Your task to perform on an android device: turn smart compose on in the gmail app Image 0: 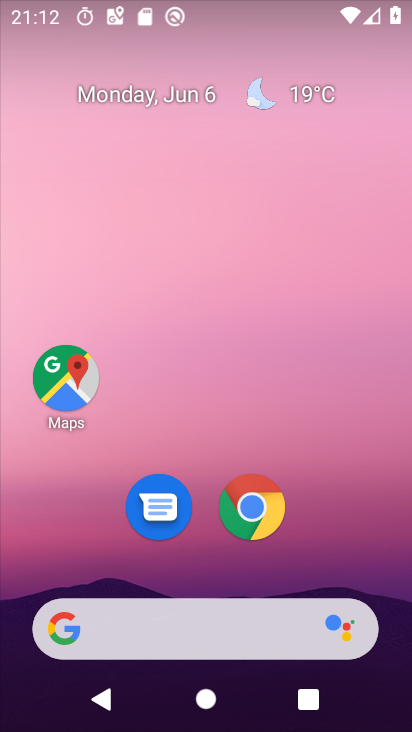
Step 0: press home button
Your task to perform on an android device: turn smart compose on in the gmail app Image 1: 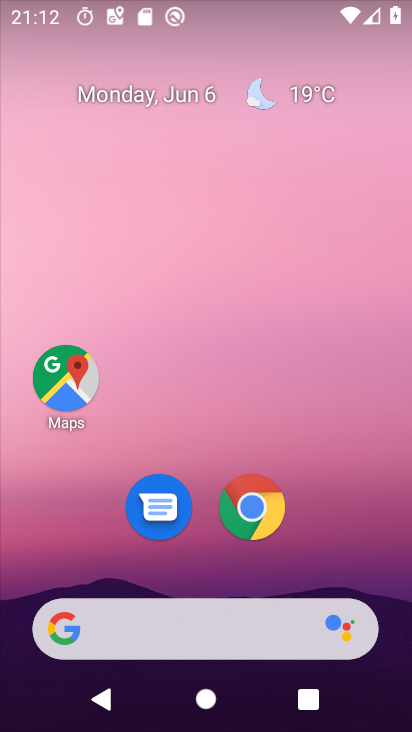
Step 1: drag from (348, 530) to (367, 52)
Your task to perform on an android device: turn smart compose on in the gmail app Image 2: 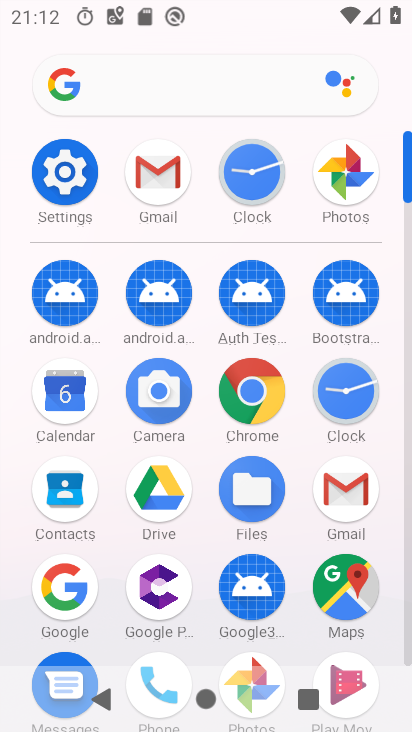
Step 2: click (146, 157)
Your task to perform on an android device: turn smart compose on in the gmail app Image 3: 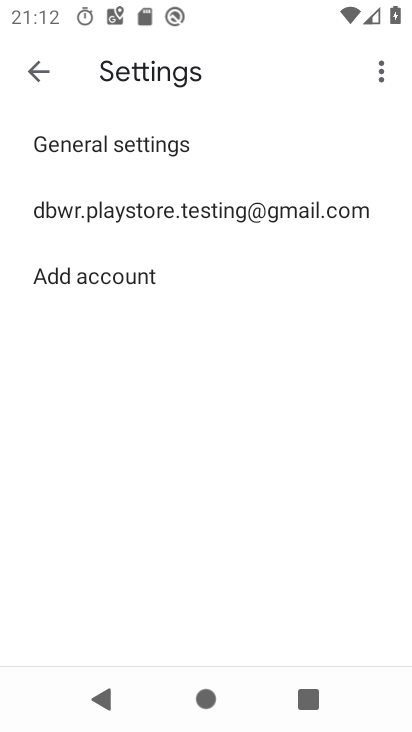
Step 3: click (41, 70)
Your task to perform on an android device: turn smart compose on in the gmail app Image 4: 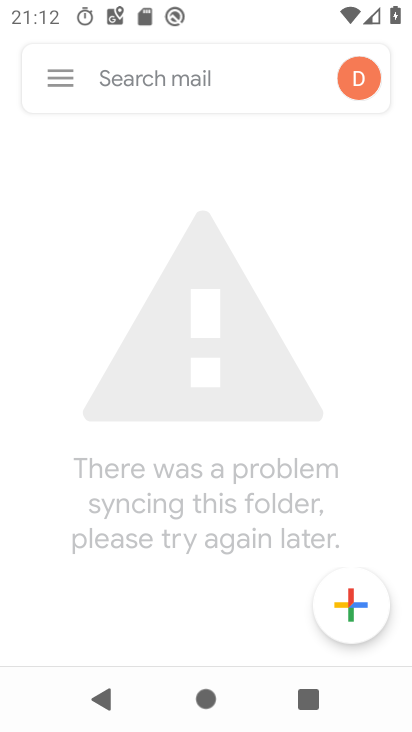
Step 4: click (41, 70)
Your task to perform on an android device: turn smart compose on in the gmail app Image 5: 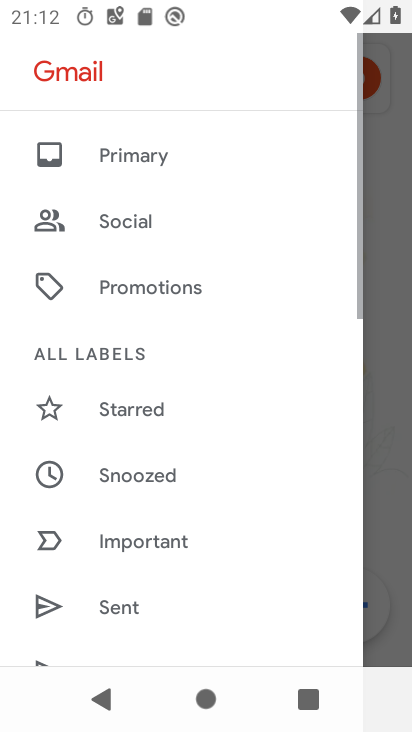
Step 5: drag from (151, 594) to (192, 122)
Your task to perform on an android device: turn smart compose on in the gmail app Image 6: 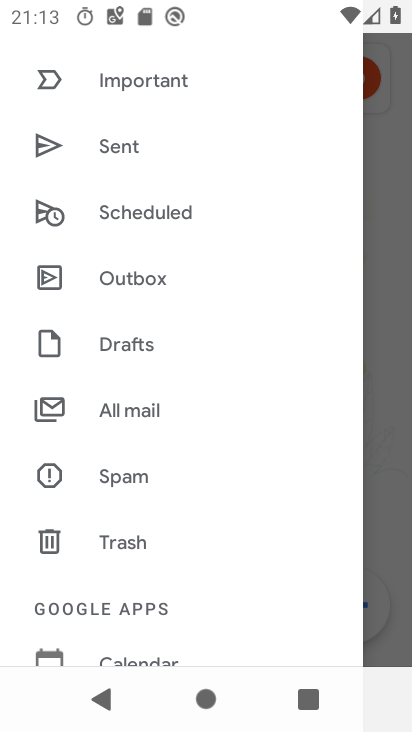
Step 6: drag from (141, 648) to (197, 180)
Your task to perform on an android device: turn smart compose on in the gmail app Image 7: 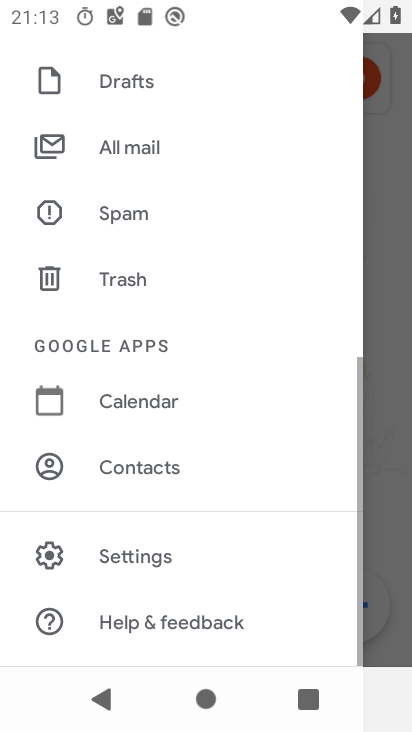
Step 7: click (134, 551)
Your task to perform on an android device: turn smart compose on in the gmail app Image 8: 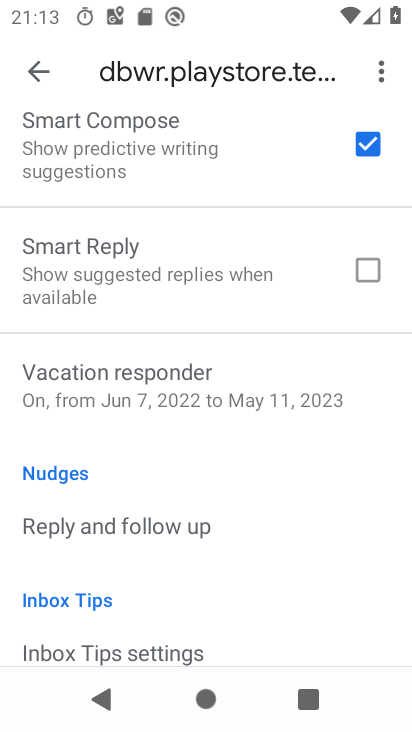
Step 8: task complete